Your task to perform on an android device: open app "Instagram" (install if not already installed) Image 0: 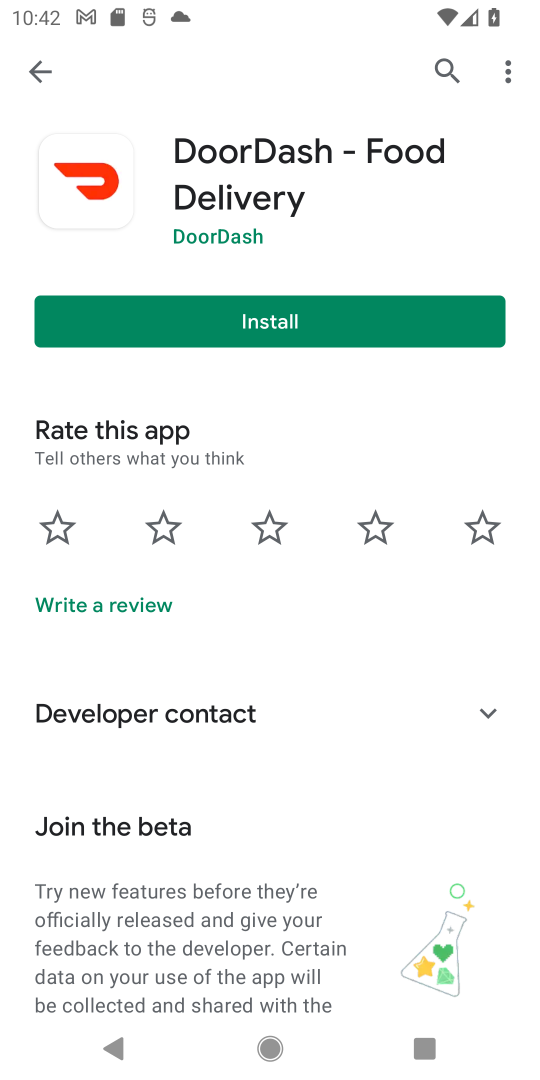
Step 0: press home button
Your task to perform on an android device: open app "Instagram" (install if not already installed) Image 1: 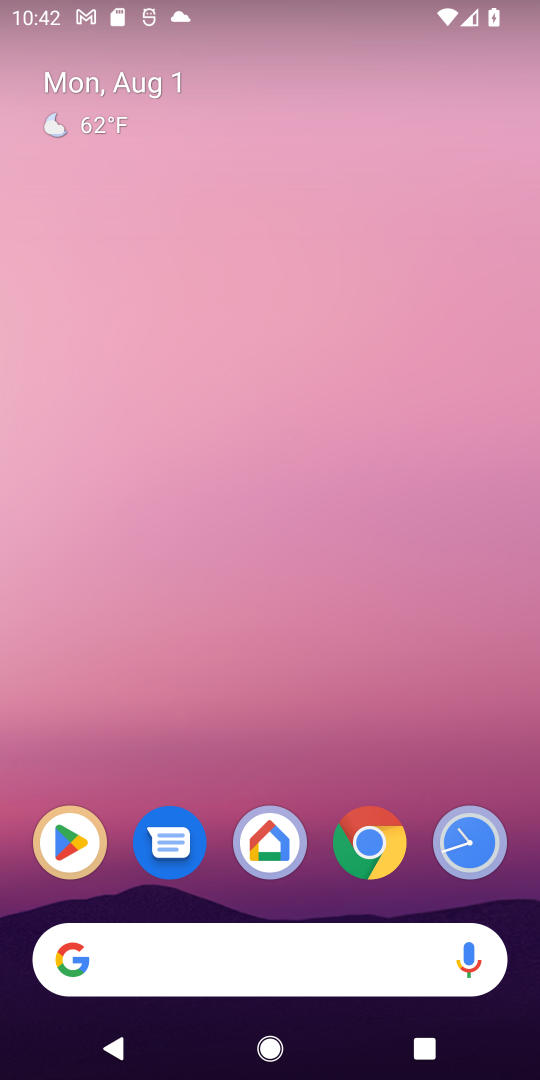
Step 1: drag from (175, 903) to (242, 14)
Your task to perform on an android device: open app "Instagram" (install if not already installed) Image 2: 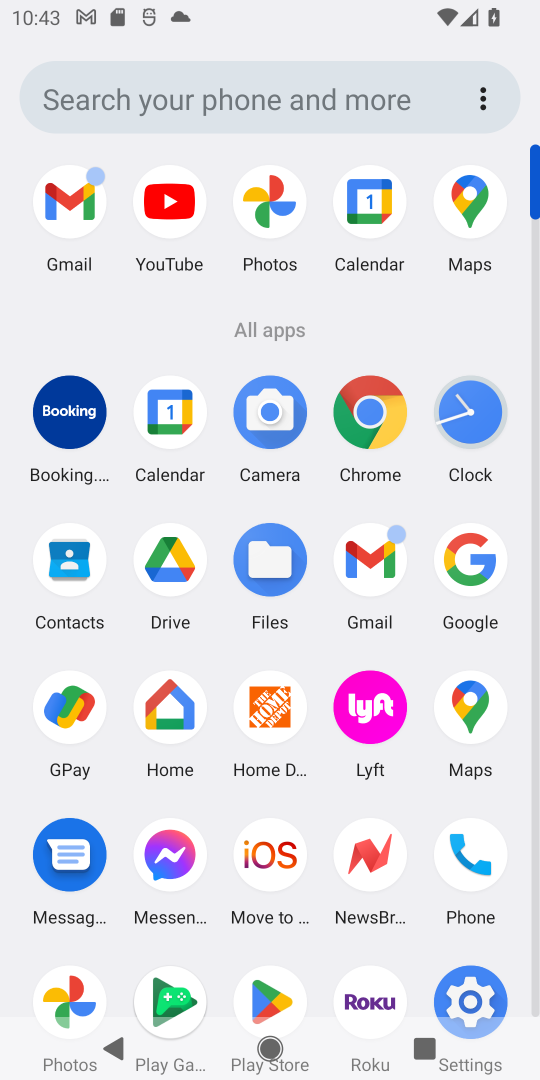
Step 2: click (273, 991)
Your task to perform on an android device: open app "Instagram" (install if not already installed) Image 3: 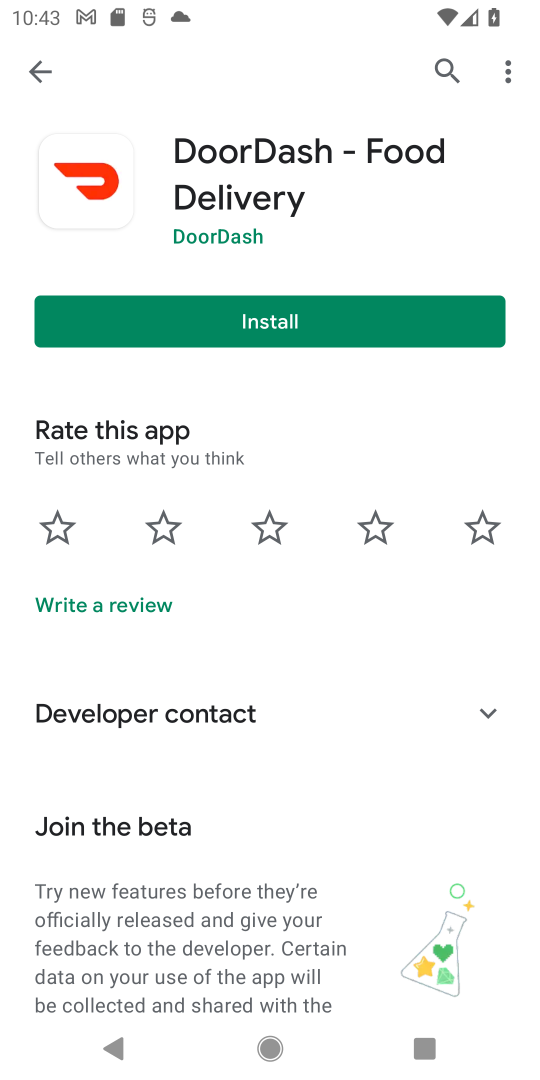
Step 3: click (428, 61)
Your task to perform on an android device: open app "Instagram" (install if not already installed) Image 4: 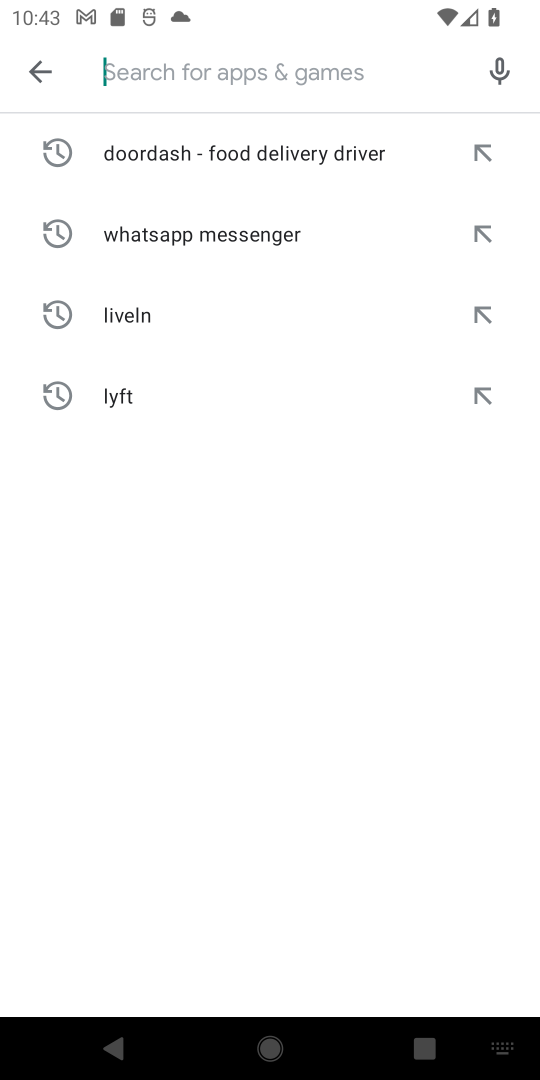
Step 4: click (170, 64)
Your task to perform on an android device: open app "Instagram" (install if not already installed) Image 5: 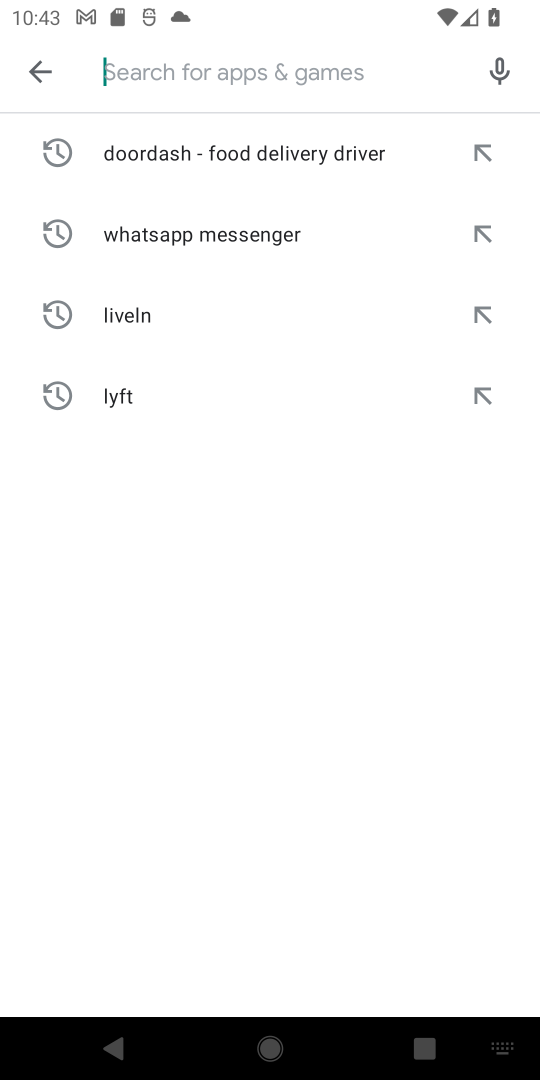
Step 5: type "Instagram"
Your task to perform on an android device: open app "Instagram" (install if not already installed) Image 6: 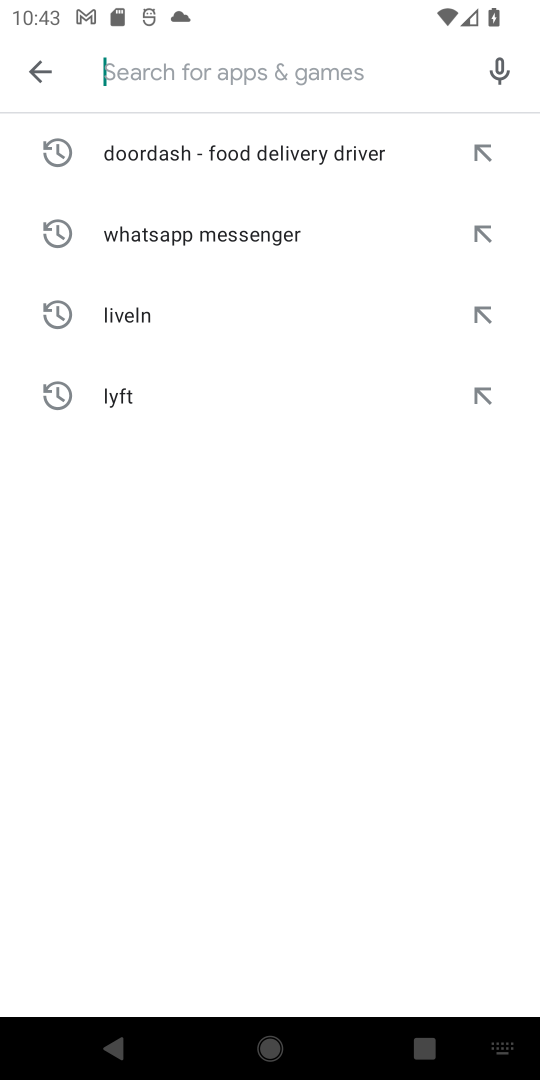
Step 6: click (190, 520)
Your task to perform on an android device: open app "Instagram" (install if not already installed) Image 7: 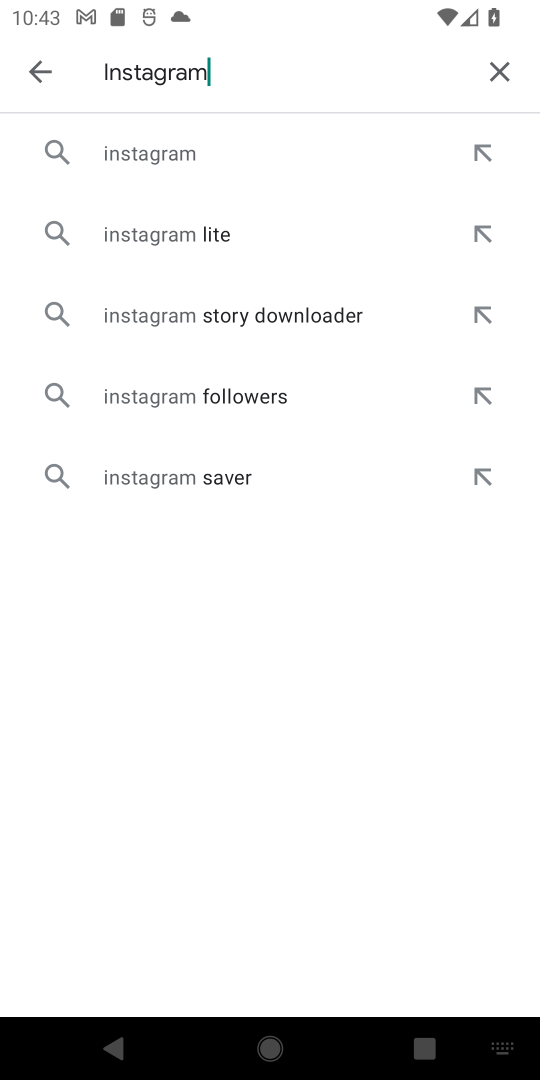
Step 7: click (147, 146)
Your task to perform on an android device: open app "Instagram" (install if not already installed) Image 8: 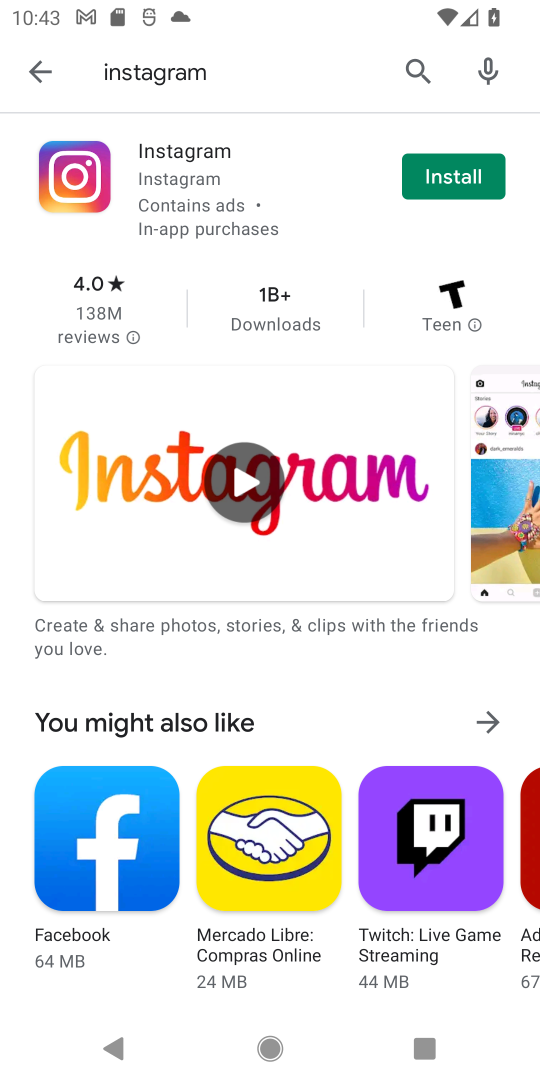
Step 8: click (431, 185)
Your task to perform on an android device: open app "Instagram" (install if not already installed) Image 9: 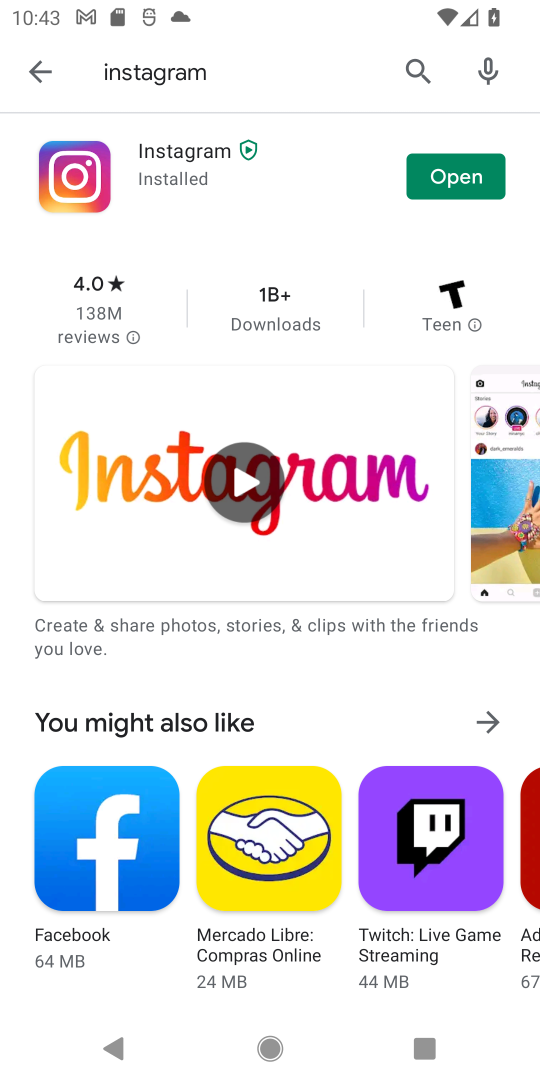
Step 9: click (434, 185)
Your task to perform on an android device: open app "Instagram" (install if not already installed) Image 10: 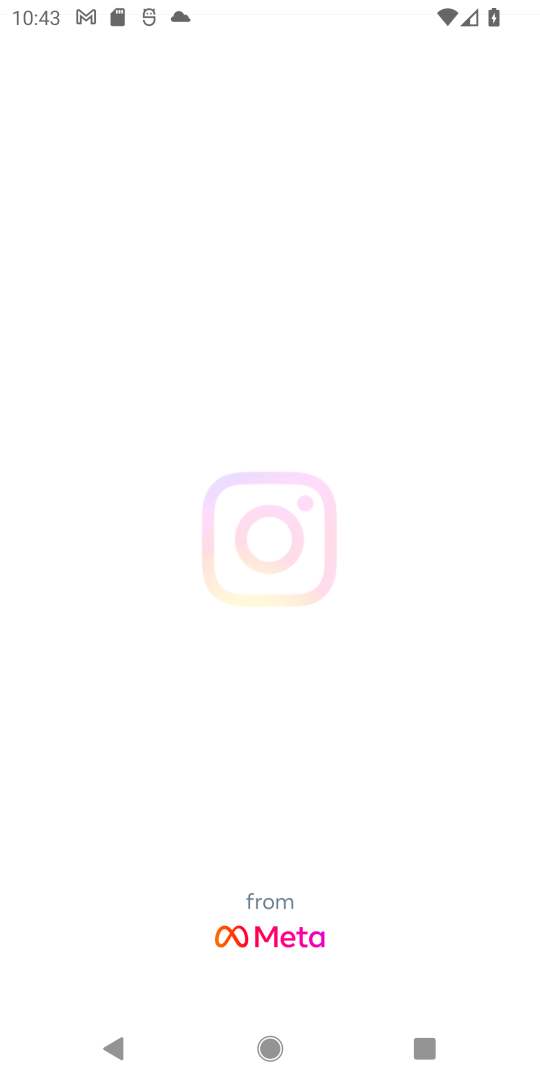
Step 10: task complete